Your task to perform on an android device: set default search engine in the chrome app Image 0: 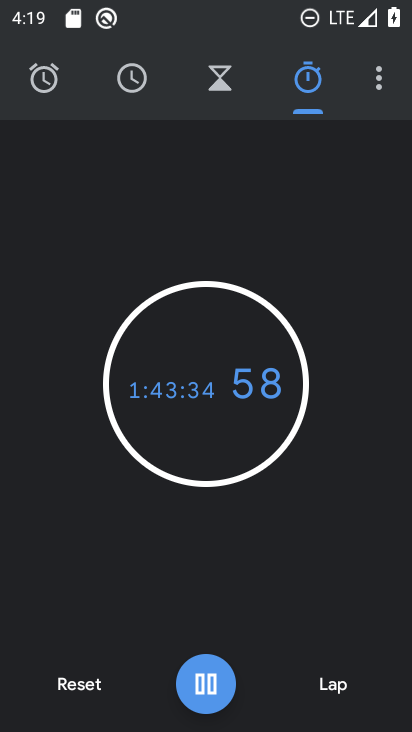
Step 0: press home button
Your task to perform on an android device: set default search engine in the chrome app Image 1: 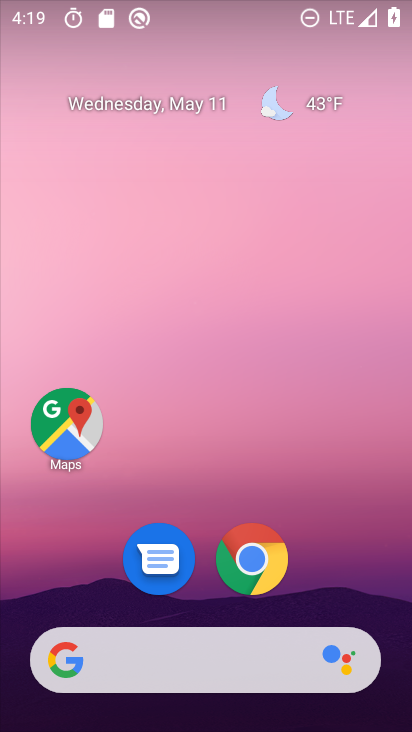
Step 1: click (255, 555)
Your task to perform on an android device: set default search engine in the chrome app Image 2: 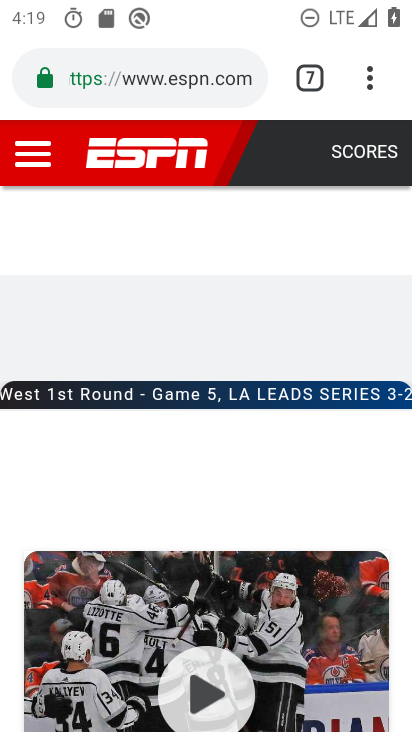
Step 2: click (370, 81)
Your task to perform on an android device: set default search engine in the chrome app Image 3: 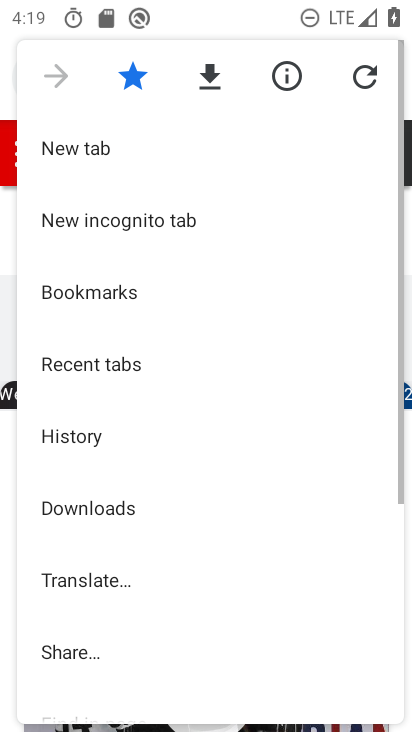
Step 3: drag from (169, 622) to (201, 269)
Your task to perform on an android device: set default search engine in the chrome app Image 4: 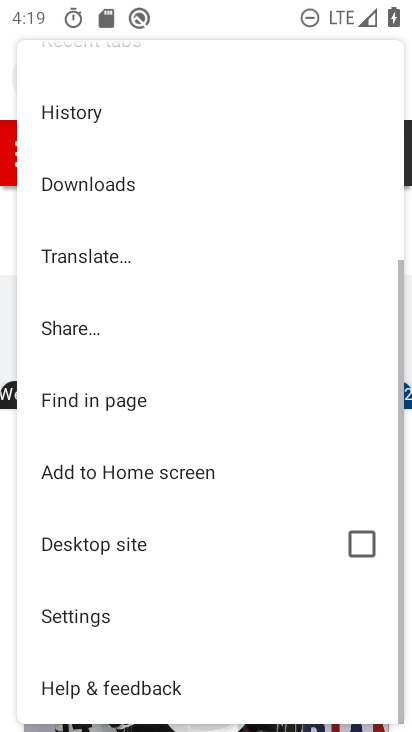
Step 4: click (138, 613)
Your task to perform on an android device: set default search engine in the chrome app Image 5: 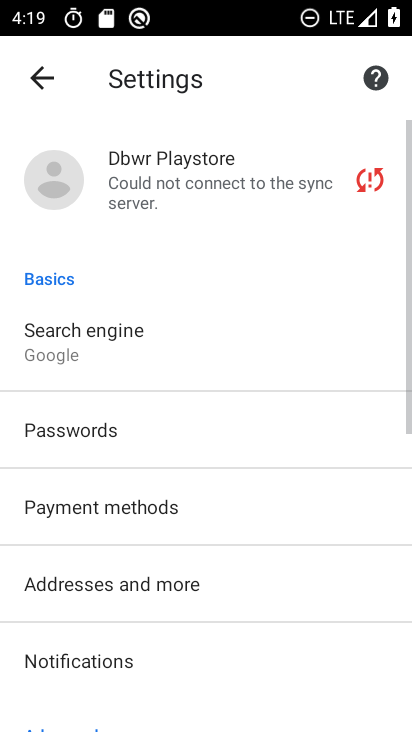
Step 5: click (133, 353)
Your task to perform on an android device: set default search engine in the chrome app Image 6: 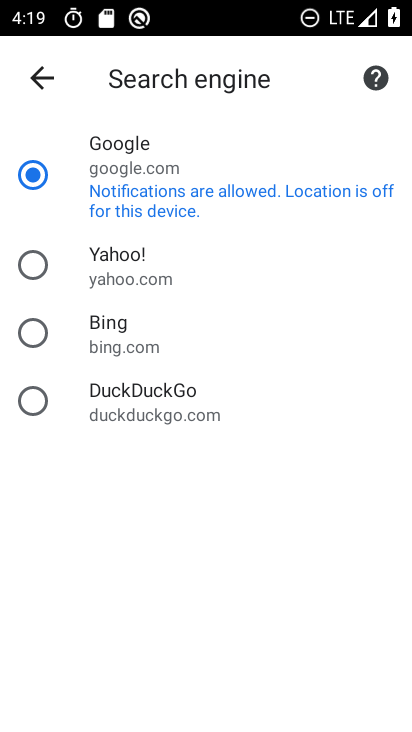
Step 6: click (174, 151)
Your task to perform on an android device: set default search engine in the chrome app Image 7: 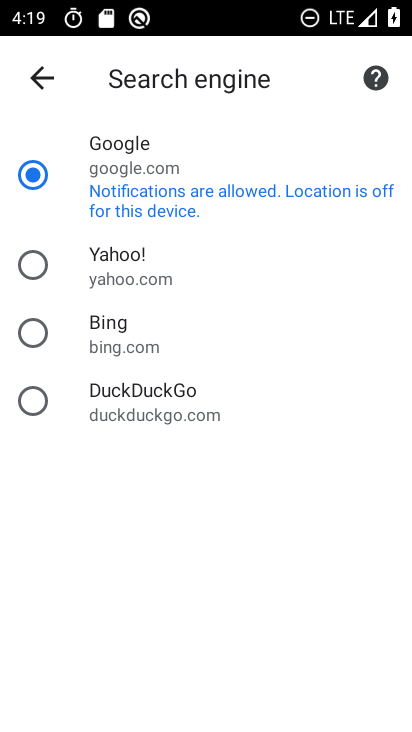
Step 7: task complete